Your task to perform on an android device: Clear the cart on costco. Search for dell xps on costco, select the first entry, add it to the cart, then select checkout. Image 0: 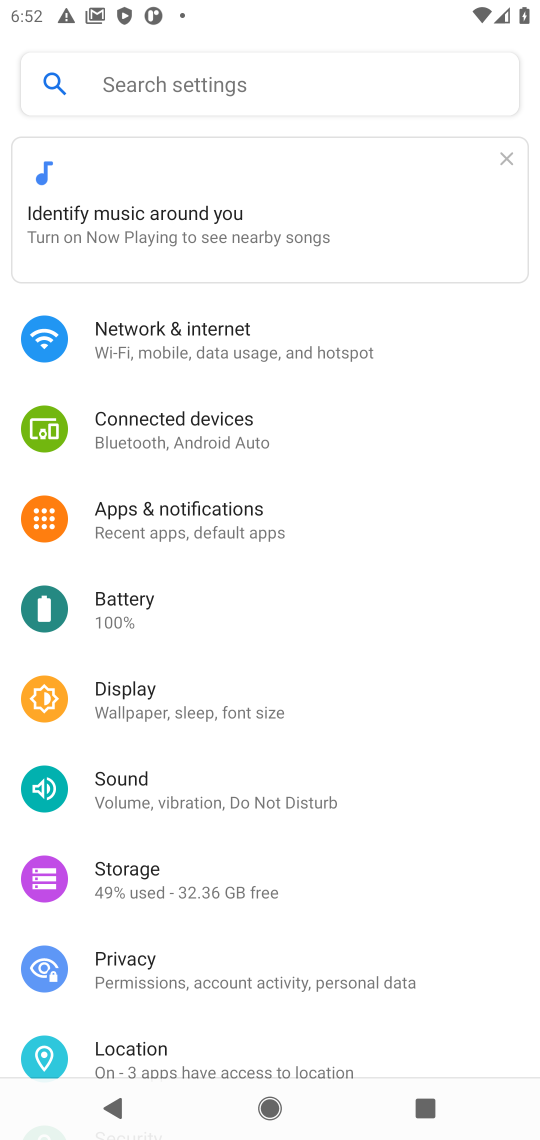
Step 0: press home button
Your task to perform on an android device: Clear the cart on costco. Search for dell xps on costco, select the first entry, add it to the cart, then select checkout. Image 1: 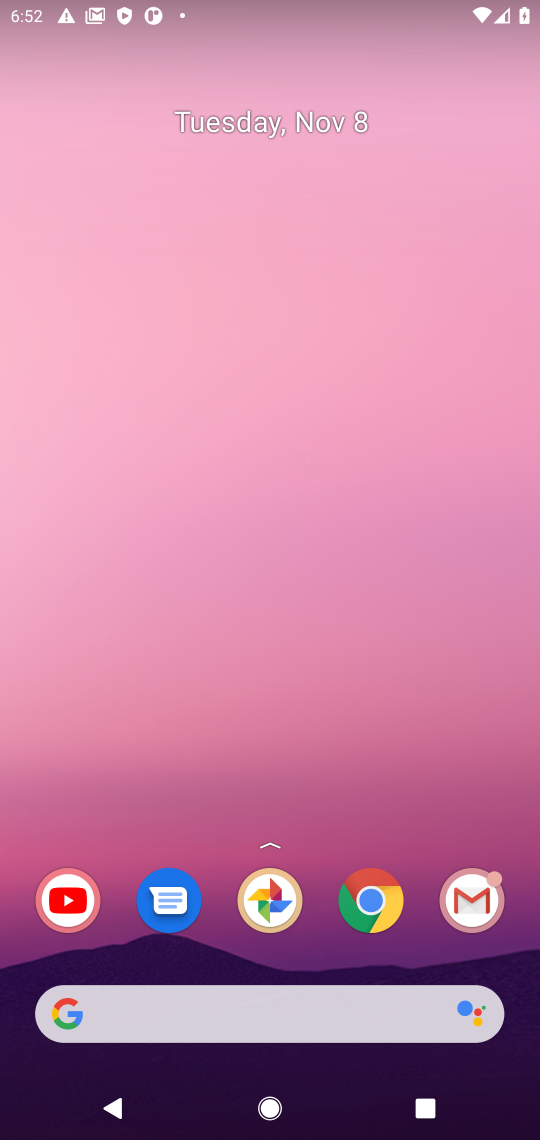
Step 1: click (367, 919)
Your task to perform on an android device: Clear the cart on costco. Search for dell xps on costco, select the first entry, add it to the cart, then select checkout. Image 2: 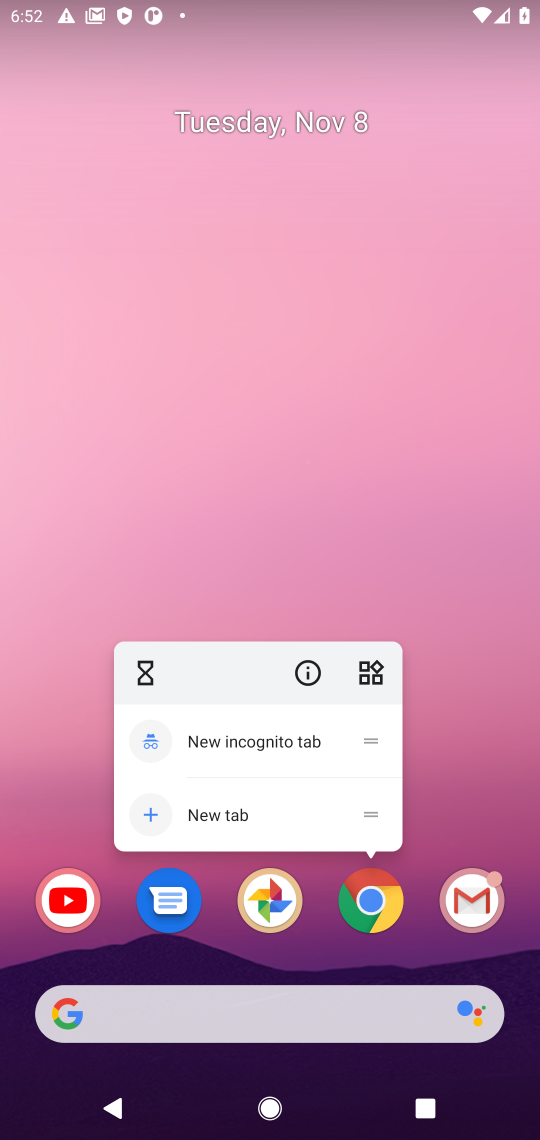
Step 2: click (362, 898)
Your task to perform on an android device: Clear the cart on costco. Search for dell xps on costco, select the first entry, add it to the cart, then select checkout. Image 3: 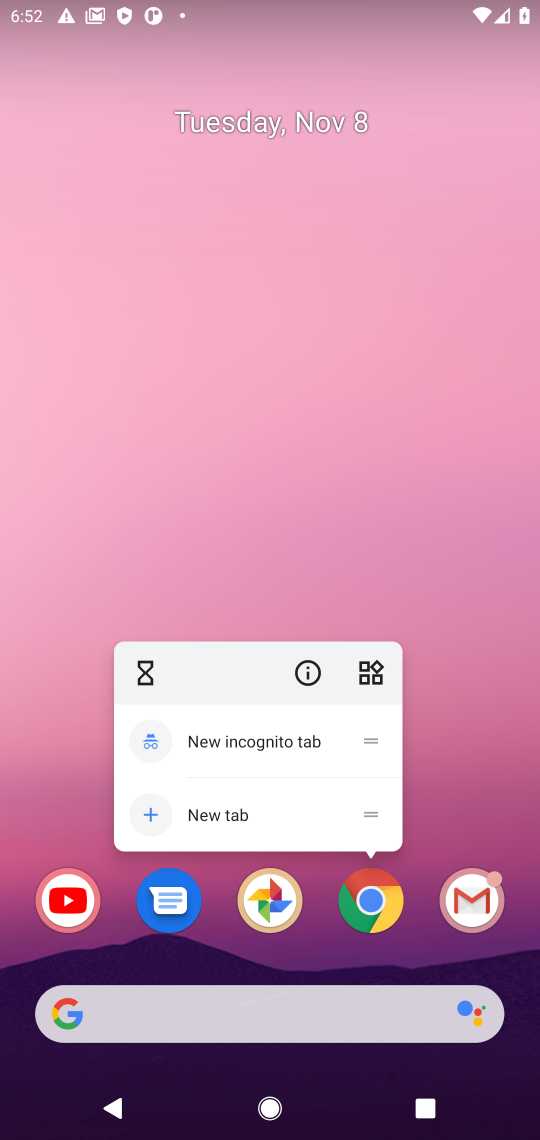
Step 3: click (369, 891)
Your task to perform on an android device: Clear the cart on costco. Search for dell xps on costco, select the first entry, add it to the cart, then select checkout. Image 4: 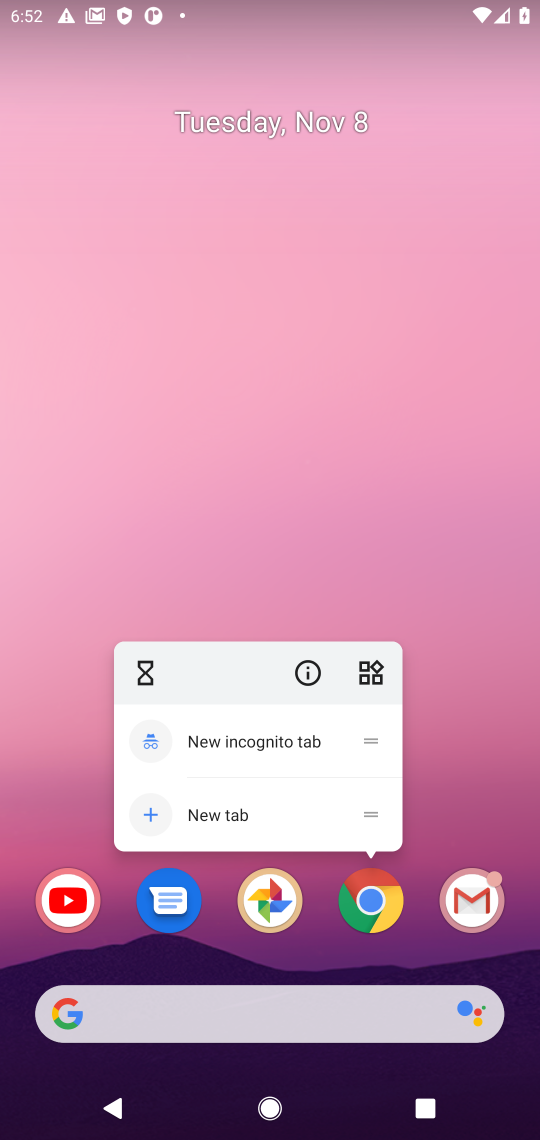
Step 4: click (369, 891)
Your task to perform on an android device: Clear the cart on costco. Search for dell xps on costco, select the first entry, add it to the cart, then select checkout. Image 5: 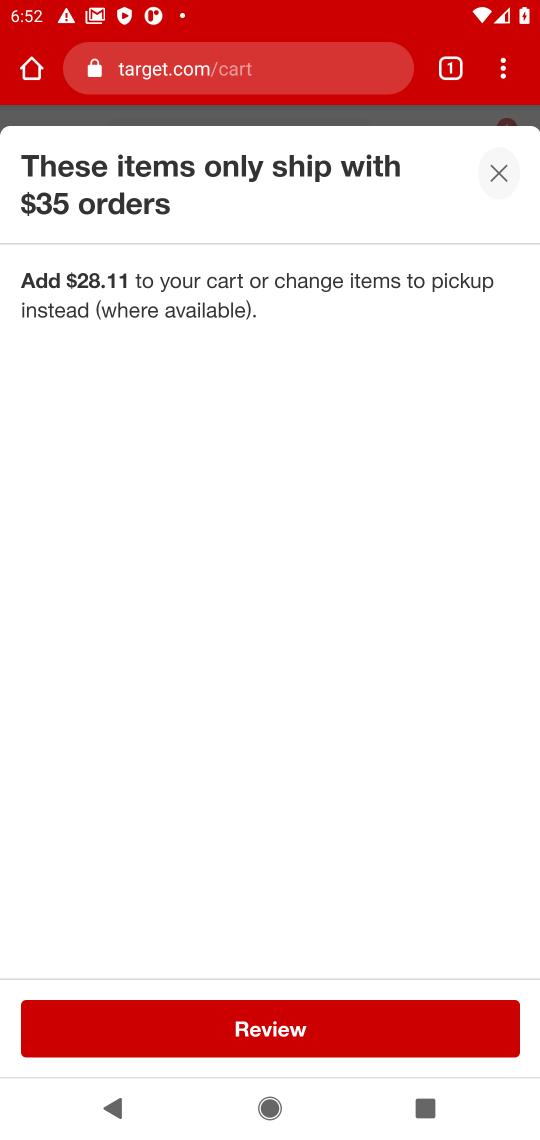
Step 5: click (253, 77)
Your task to perform on an android device: Clear the cart on costco. Search for dell xps on costco, select the first entry, add it to the cart, then select checkout. Image 6: 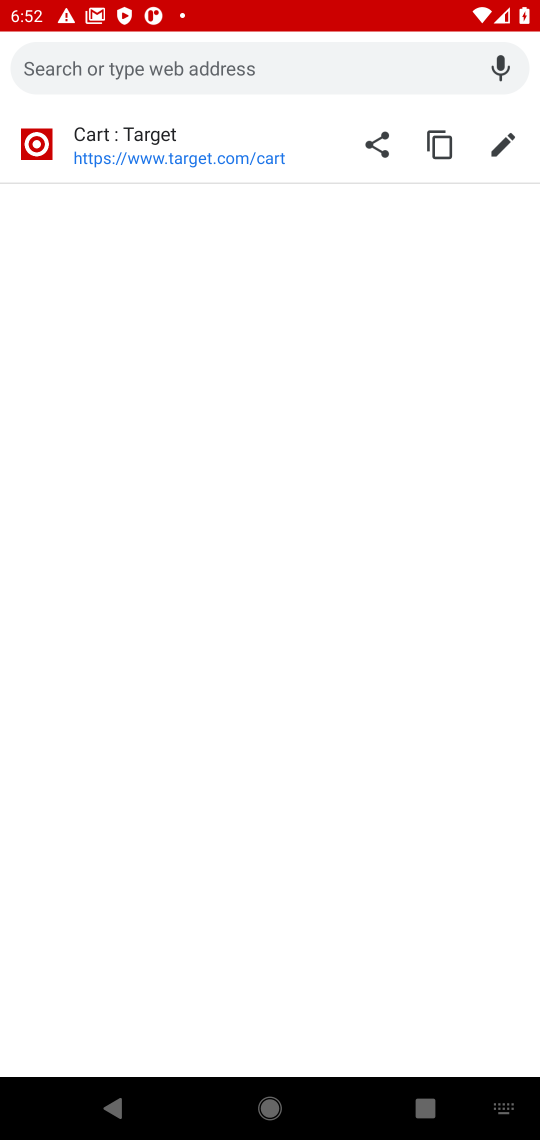
Step 6: type "costco"
Your task to perform on an android device: Clear the cart on costco. Search for dell xps on costco, select the first entry, add it to the cart, then select checkout. Image 7: 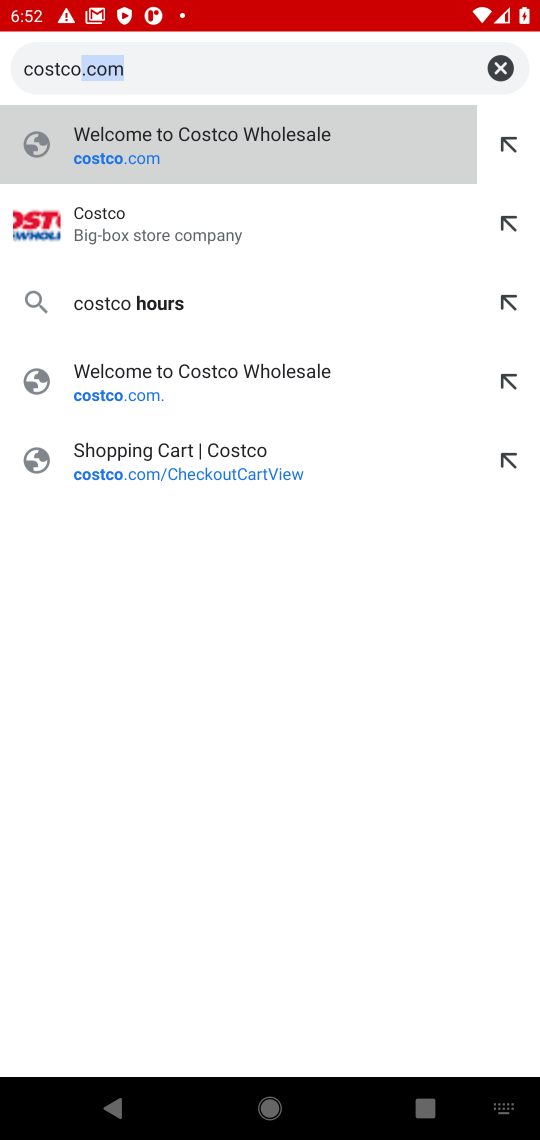
Step 7: click (107, 213)
Your task to perform on an android device: Clear the cart on costco. Search for dell xps on costco, select the first entry, add it to the cart, then select checkout. Image 8: 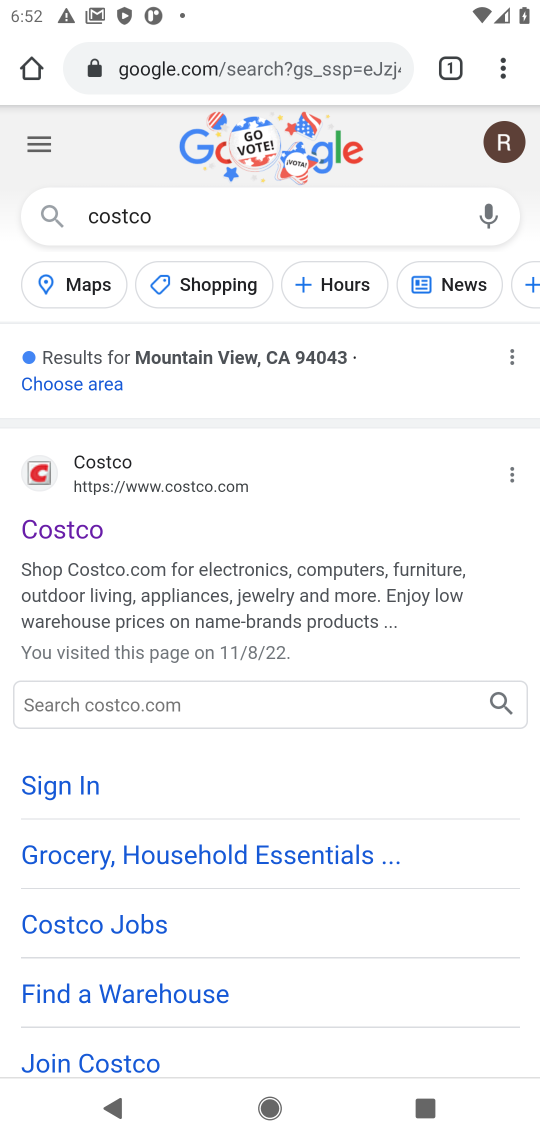
Step 8: click (71, 532)
Your task to perform on an android device: Clear the cart on costco. Search for dell xps on costco, select the first entry, add it to the cart, then select checkout. Image 9: 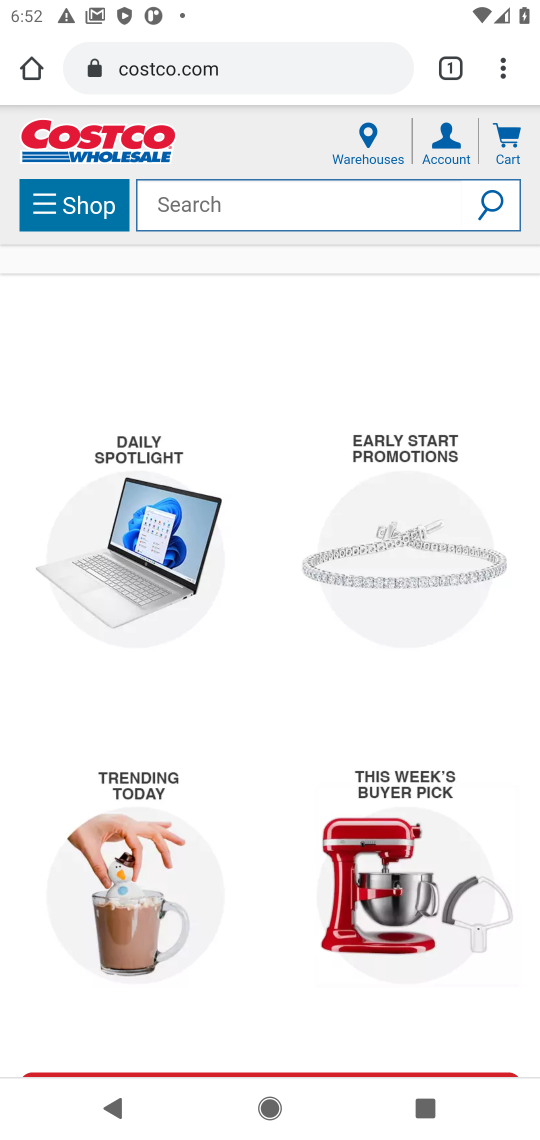
Step 9: click (198, 198)
Your task to perform on an android device: Clear the cart on costco. Search for dell xps on costco, select the first entry, add it to the cart, then select checkout. Image 10: 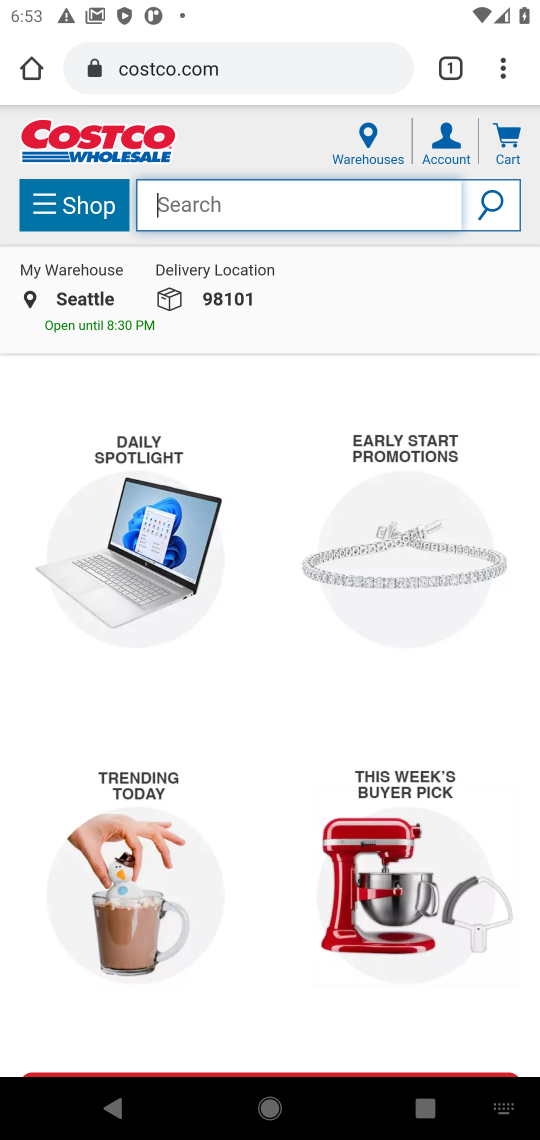
Step 10: type "dell xps"
Your task to perform on an android device: Clear the cart on costco. Search for dell xps on costco, select the first entry, add it to the cart, then select checkout. Image 11: 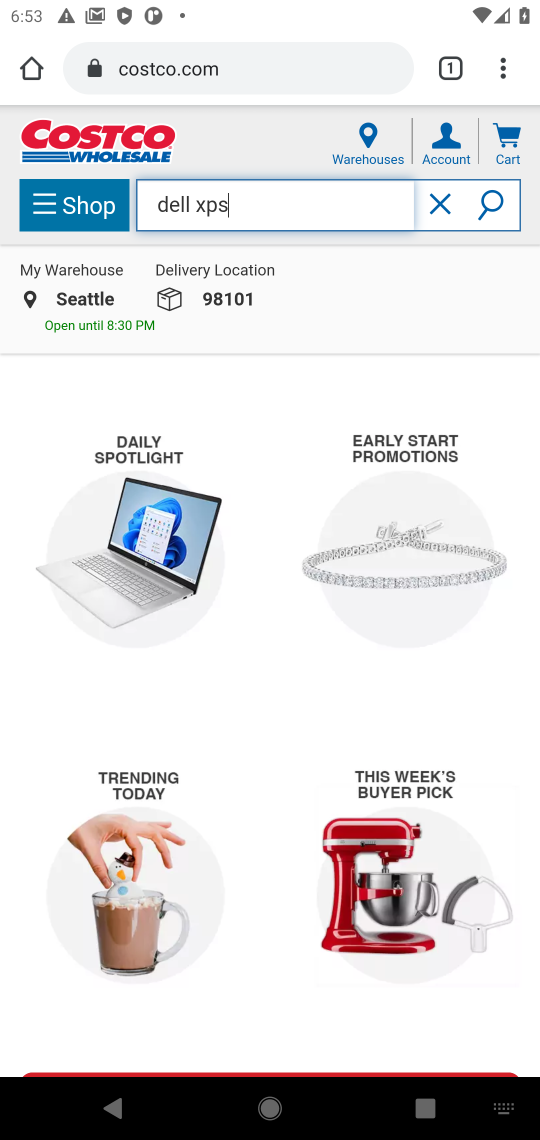
Step 11: type ""
Your task to perform on an android device: Clear the cart on costco. Search for dell xps on costco, select the first entry, add it to the cart, then select checkout. Image 12: 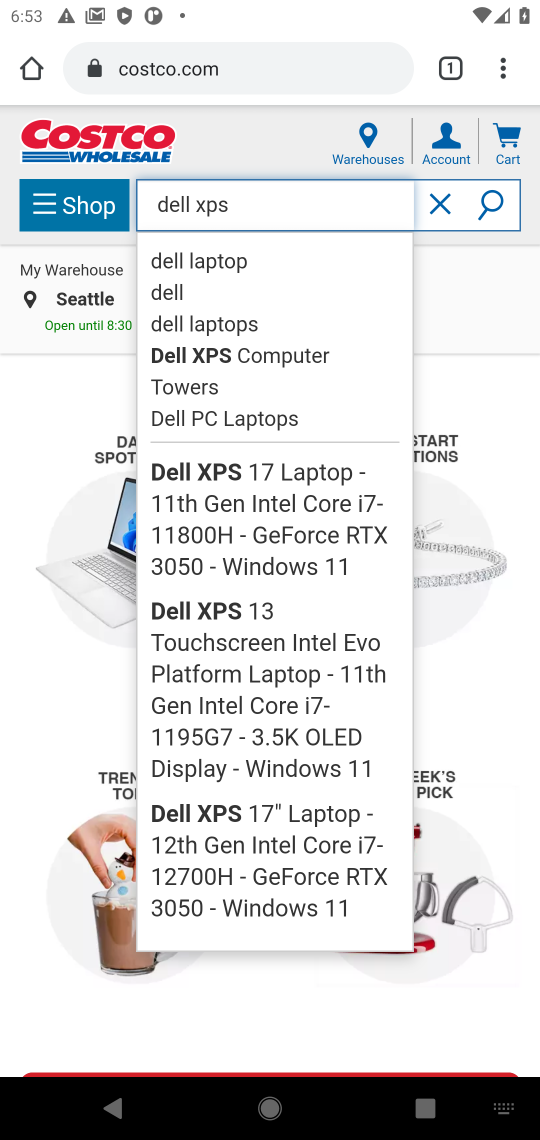
Step 12: click (205, 366)
Your task to perform on an android device: Clear the cart on costco. Search for dell xps on costco, select the first entry, add it to the cart, then select checkout. Image 13: 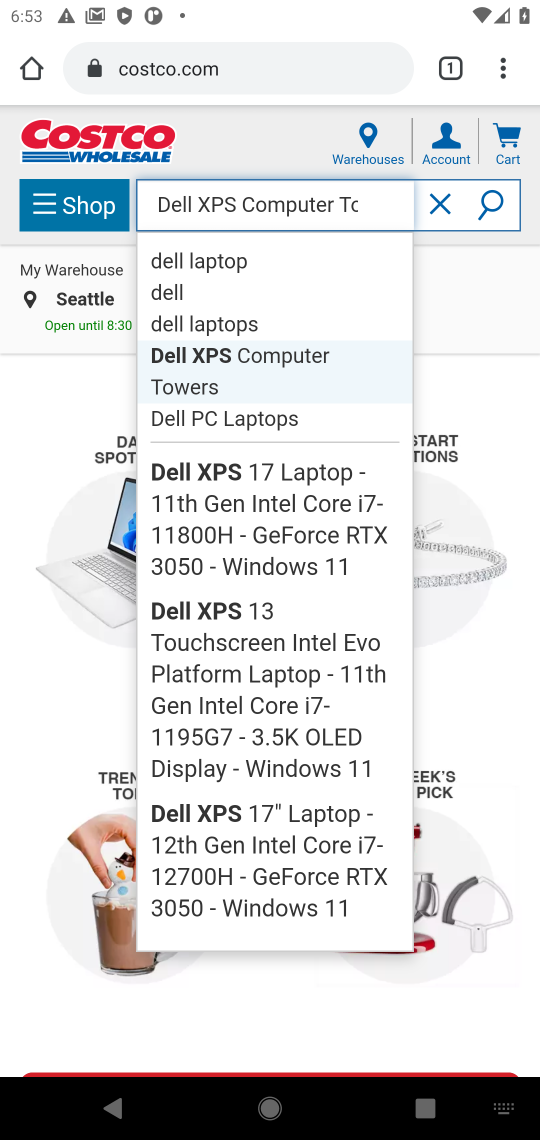
Step 13: click (223, 485)
Your task to perform on an android device: Clear the cart on costco. Search for dell xps on costco, select the first entry, add it to the cart, then select checkout. Image 14: 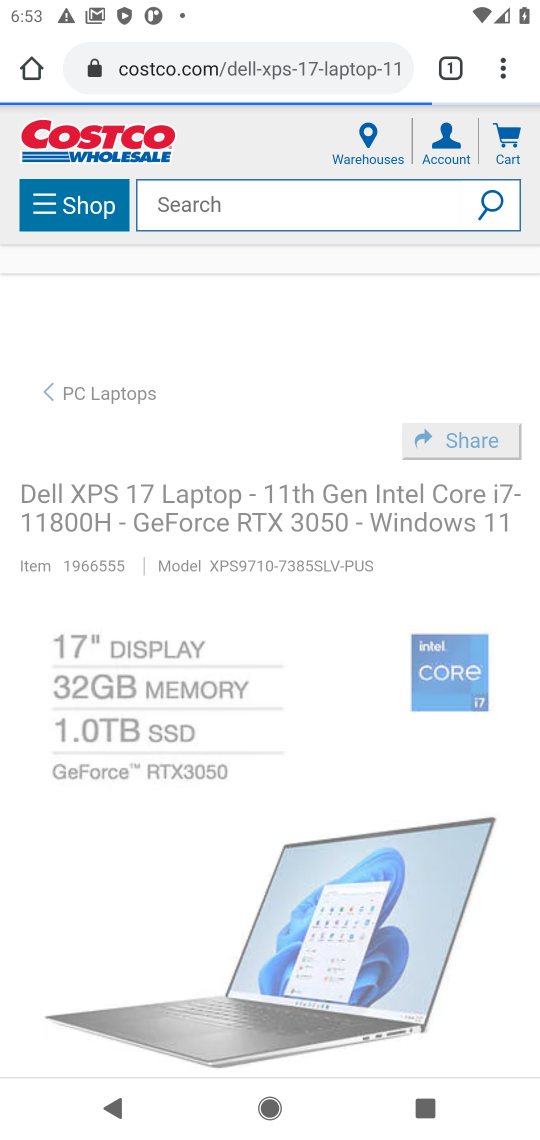
Step 14: drag from (484, 955) to (499, 109)
Your task to perform on an android device: Clear the cart on costco. Search for dell xps on costco, select the first entry, add it to the cart, then select checkout. Image 15: 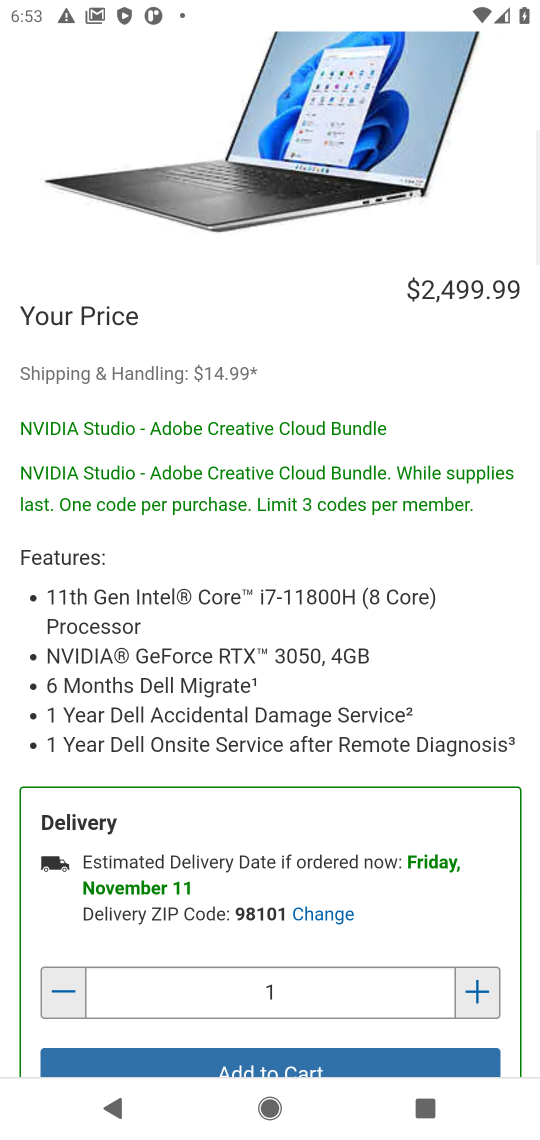
Step 15: drag from (224, 886) to (260, 348)
Your task to perform on an android device: Clear the cart on costco. Search for dell xps on costco, select the first entry, add it to the cart, then select checkout. Image 16: 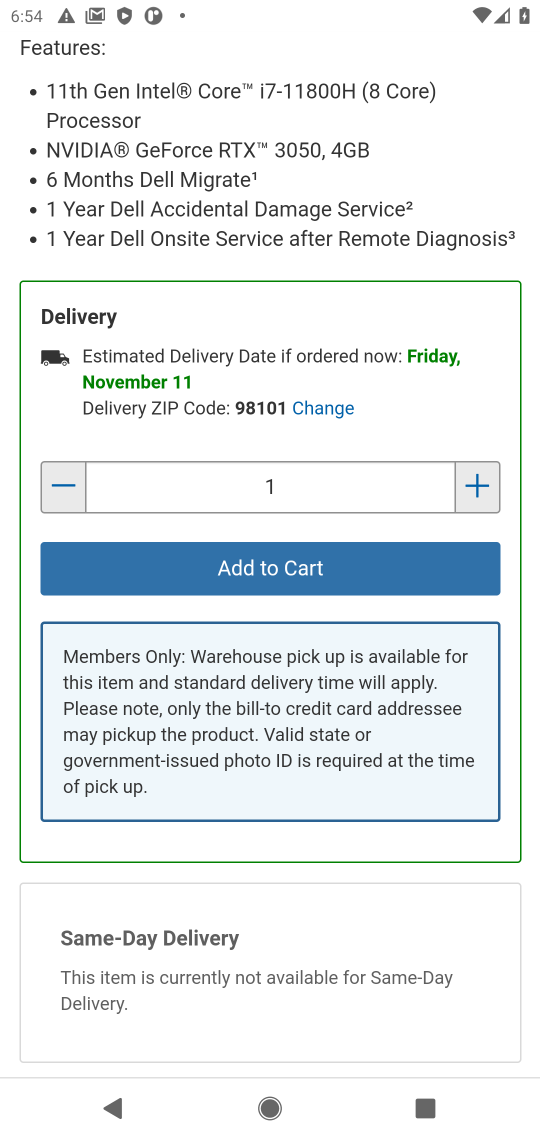
Step 16: click (254, 586)
Your task to perform on an android device: Clear the cart on costco. Search for dell xps on costco, select the first entry, add it to the cart, then select checkout. Image 17: 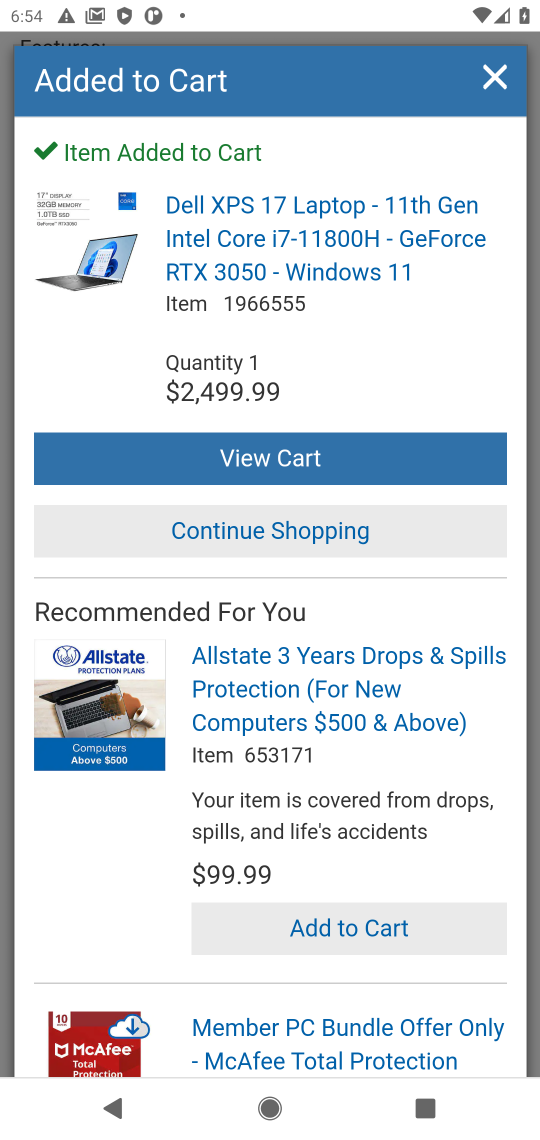
Step 17: click (265, 460)
Your task to perform on an android device: Clear the cart on costco. Search for dell xps on costco, select the first entry, add it to the cart, then select checkout. Image 18: 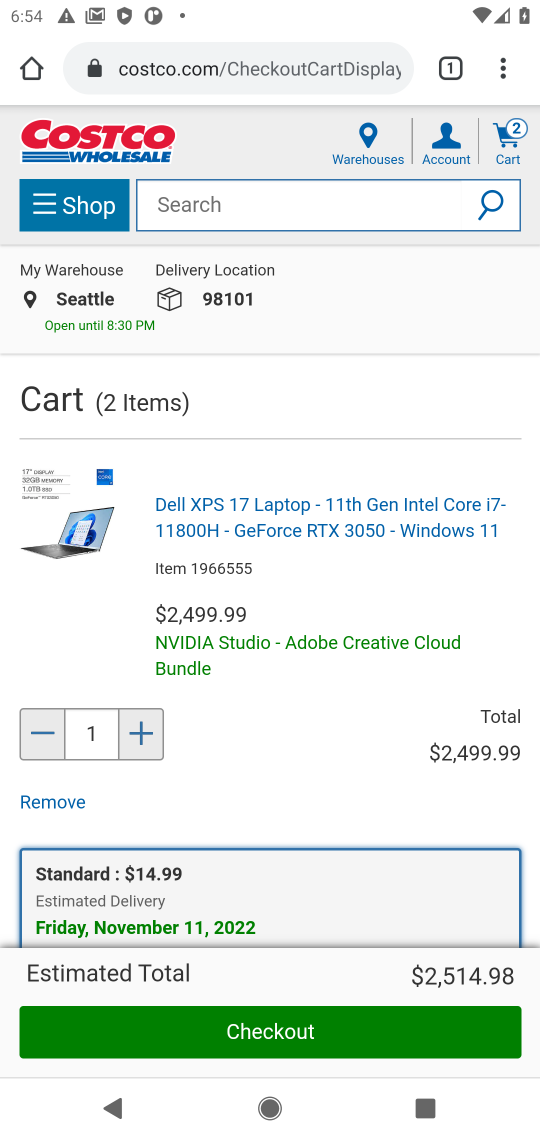
Step 18: drag from (420, 780) to (410, 545)
Your task to perform on an android device: Clear the cart on costco. Search for dell xps on costco, select the first entry, add it to the cart, then select checkout. Image 19: 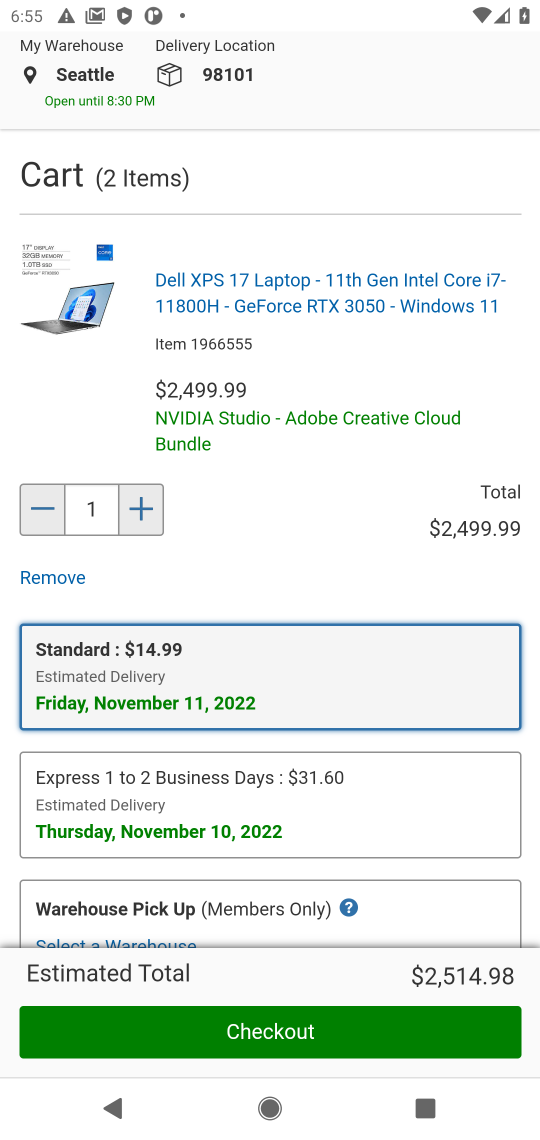
Step 19: click (365, 1034)
Your task to perform on an android device: Clear the cart on costco. Search for dell xps on costco, select the first entry, add it to the cart, then select checkout. Image 20: 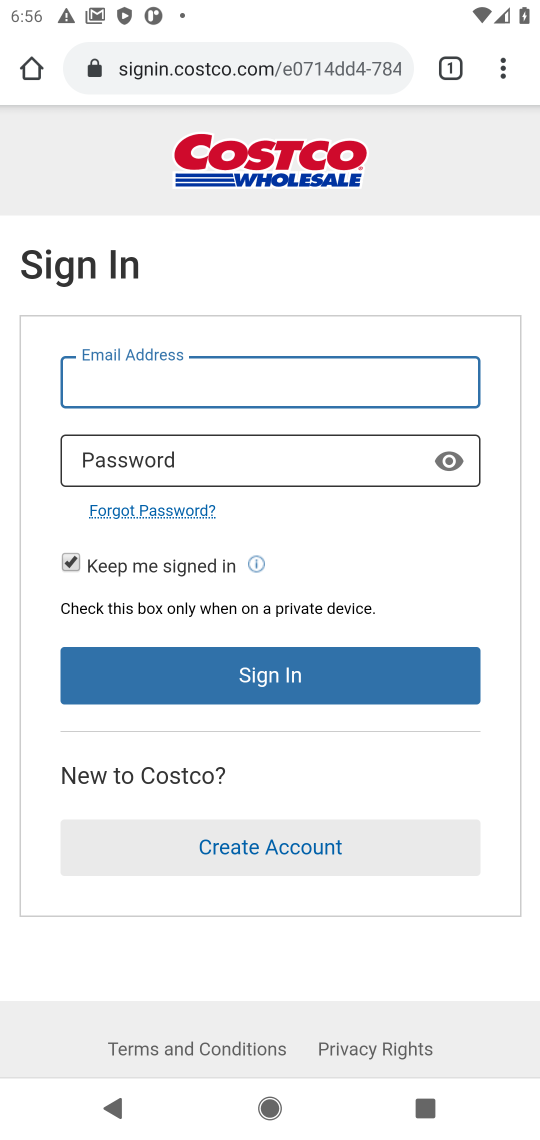
Step 20: task complete